Your task to perform on an android device: Show the shopping cart on bestbuy.com. Search for logitech g910 on bestbuy.com, select the first entry, add it to the cart, then select checkout. Image 0: 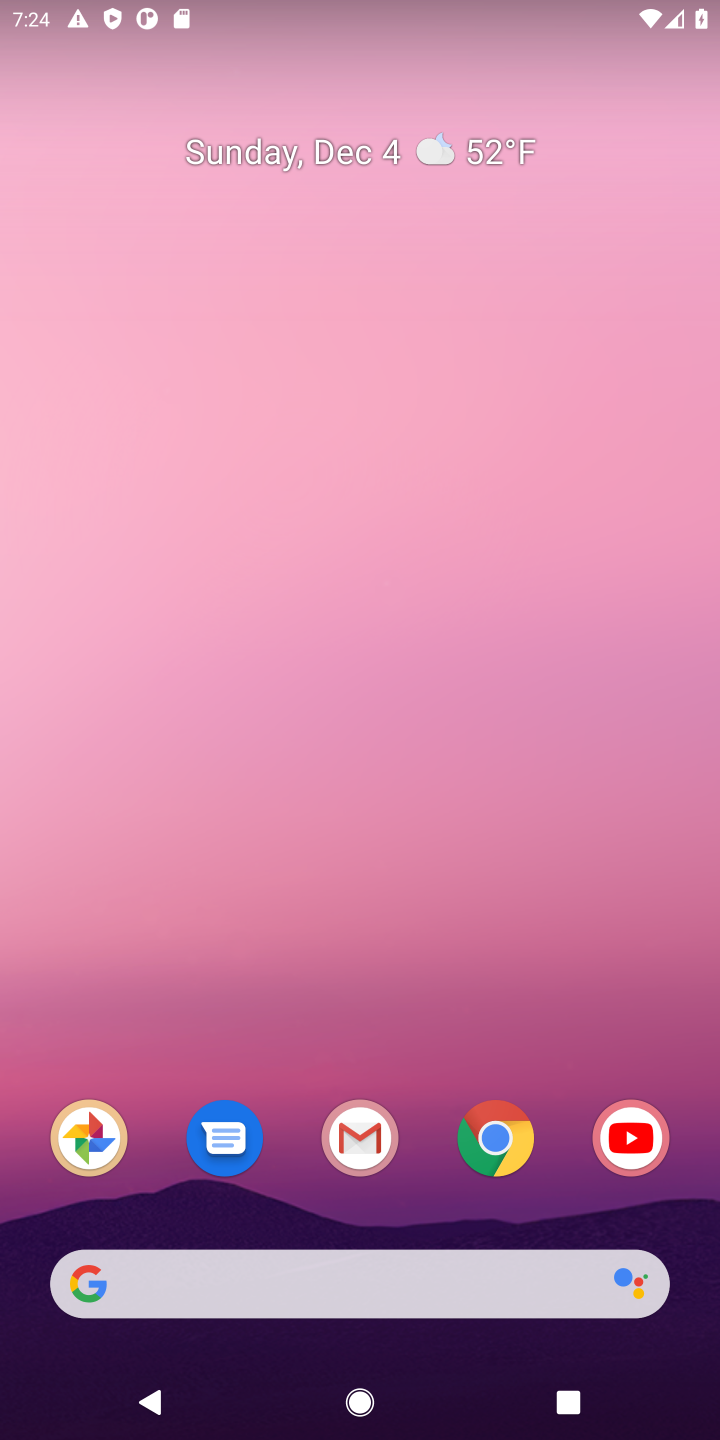
Step 0: click (491, 1143)
Your task to perform on an android device: Show the shopping cart on bestbuy.com. Search for logitech g910 on bestbuy.com, select the first entry, add it to the cart, then select checkout. Image 1: 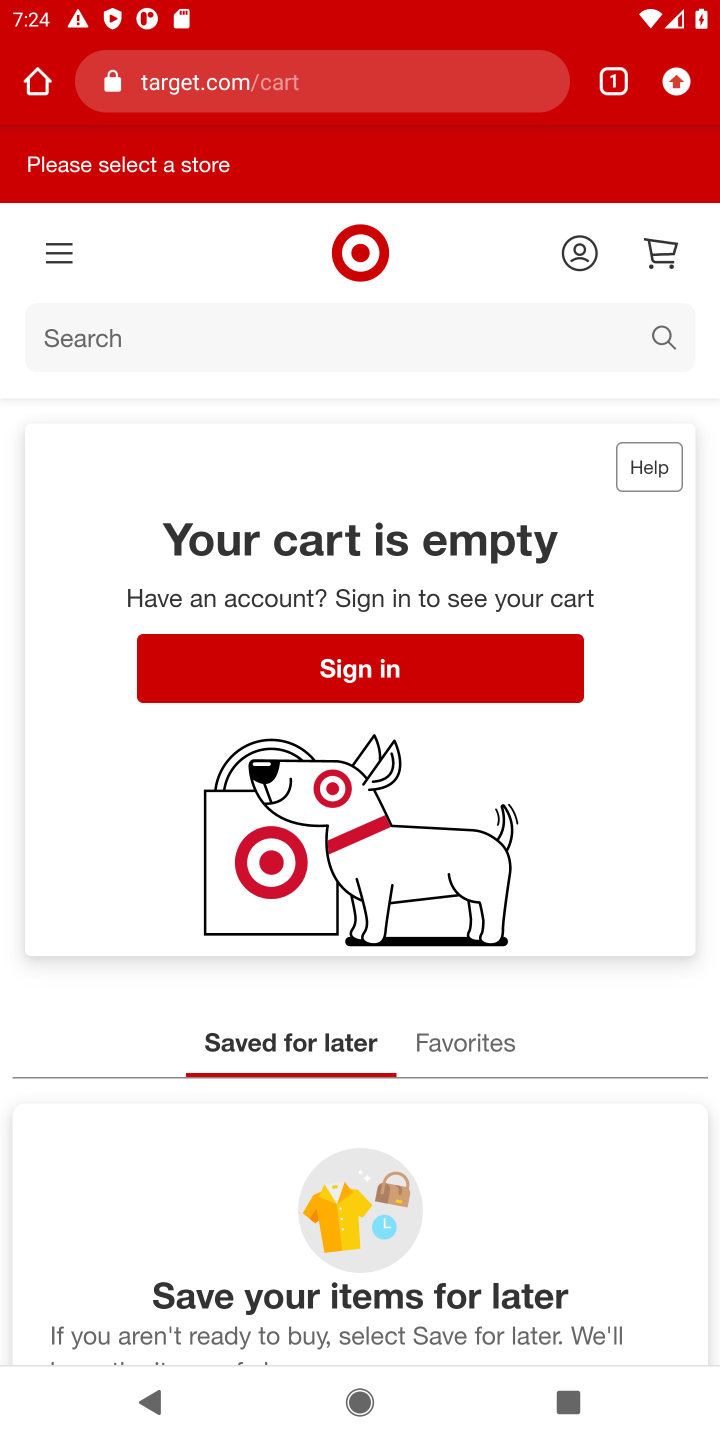
Step 1: click (420, 79)
Your task to perform on an android device: Show the shopping cart on bestbuy.com. Search for logitech g910 on bestbuy.com, select the first entry, add it to the cart, then select checkout. Image 2: 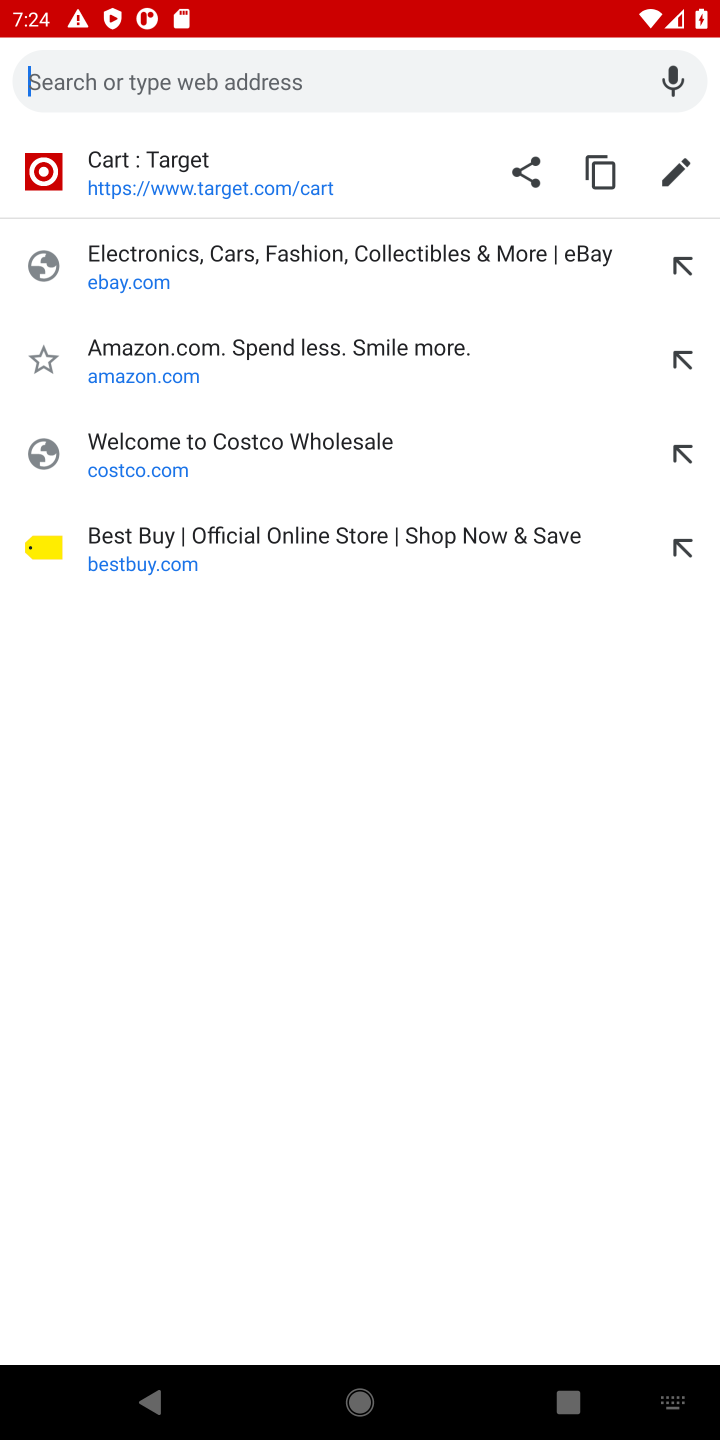
Step 2: type "bestbuy.com"
Your task to perform on an android device: Show the shopping cart on bestbuy.com. Search for logitech g910 on bestbuy.com, select the first entry, add it to the cart, then select checkout. Image 3: 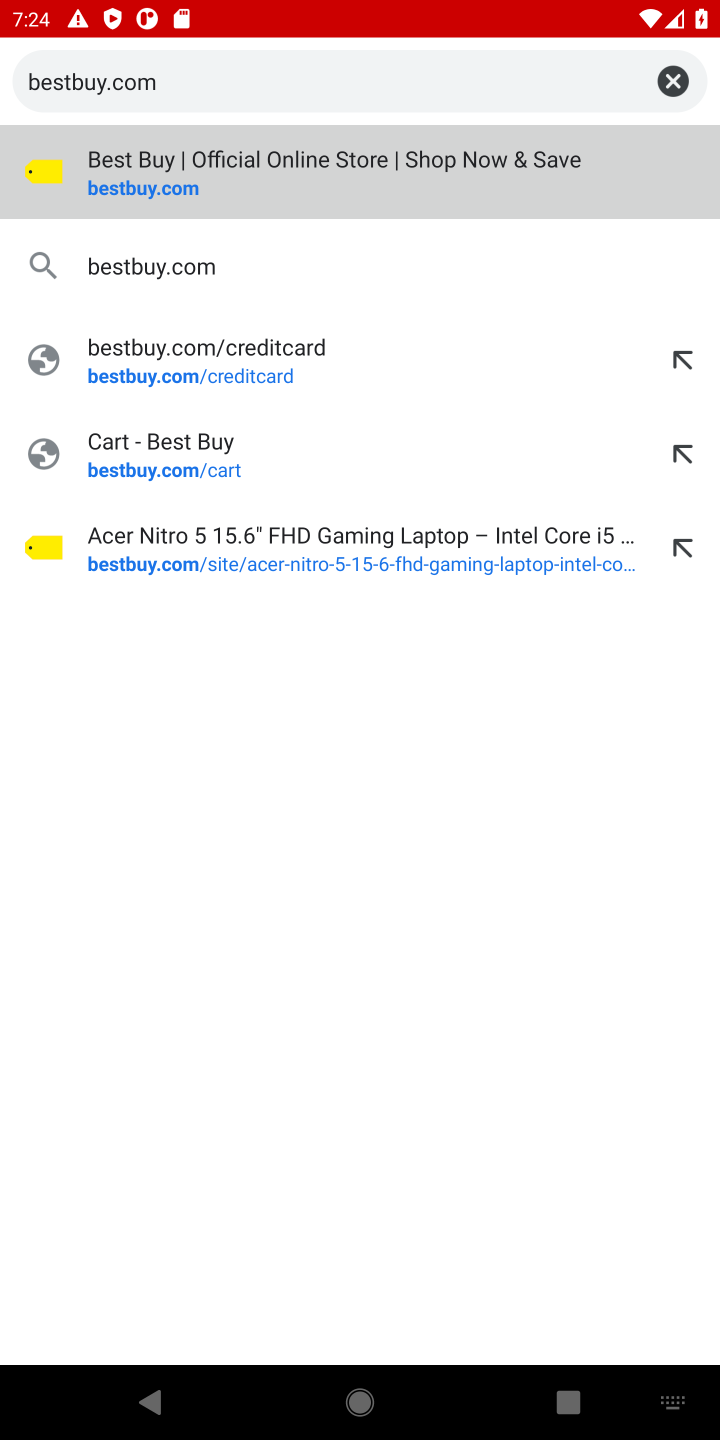
Step 3: press enter
Your task to perform on an android device: Show the shopping cart on bestbuy.com. Search for logitech g910 on bestbuy.com, select the first entry, add it to the cart, then select checkout. Image 4: 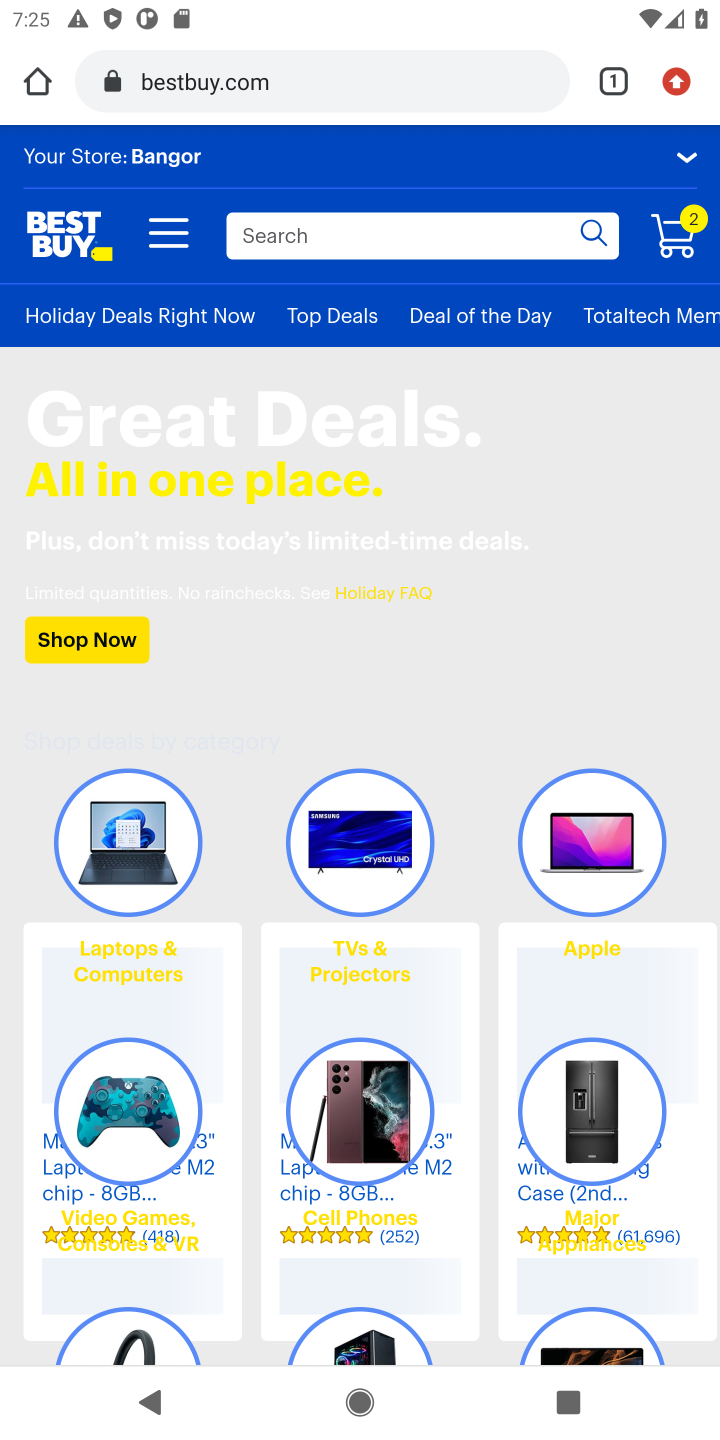
Step 4: click (665, 230)
Your task to perform on an android device: Show the shopping cart on bestbuy.com. Search for logitech g910 on bestbuy.com, select the first entry, add it to the cart, then select checkout. Image 5: 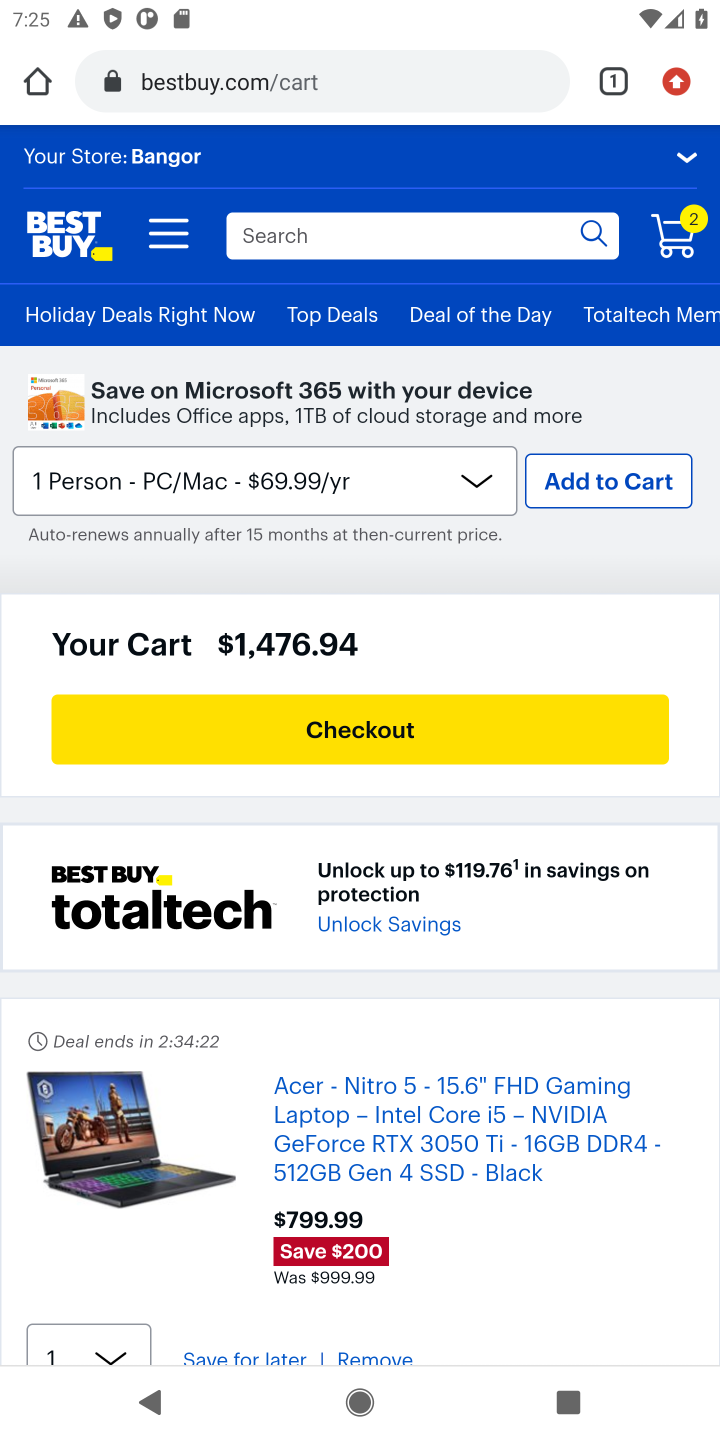
Step 5: click (407, 236)
Your task to perform on an android device: Show the shopping cart on bestbuy.com. Search for logitech g910 on bestbuy.com, select the first entry, add it to the cart, then select checkout. Image 6: 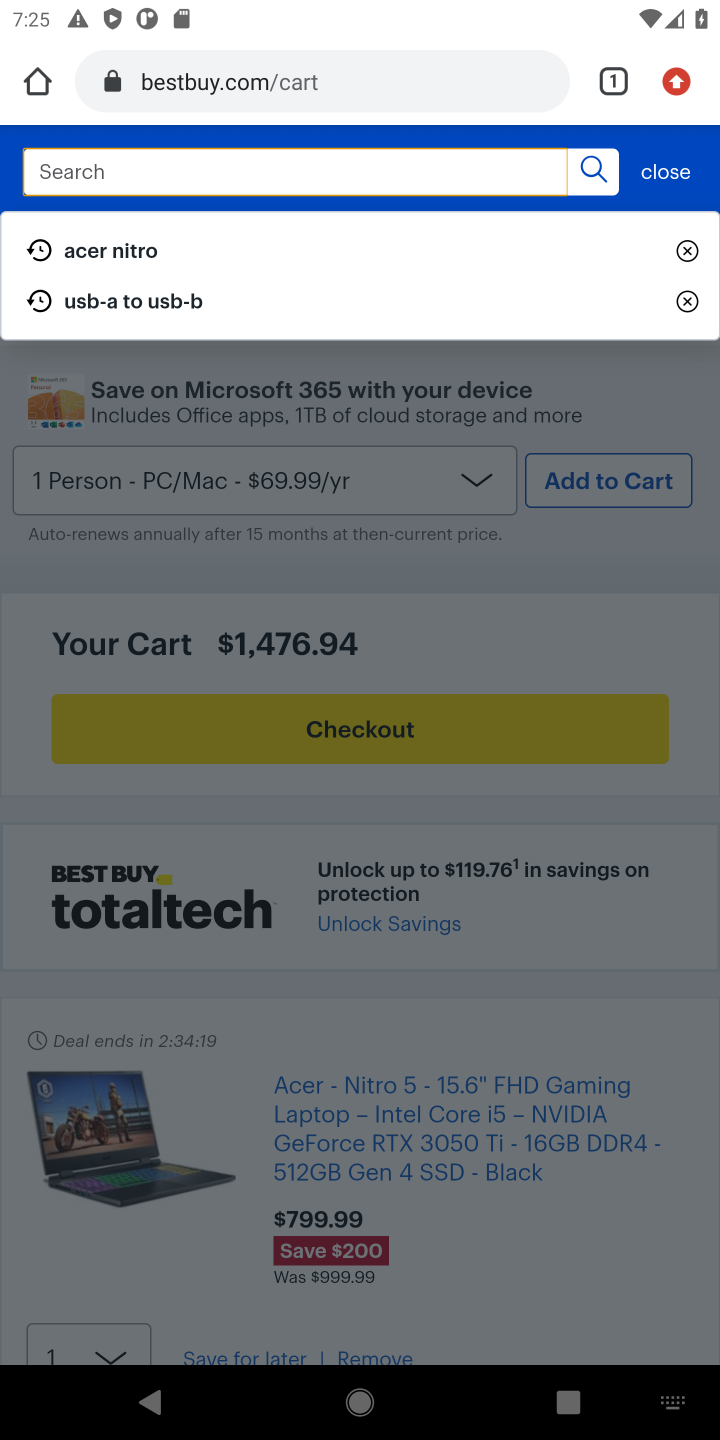
Step 6: press enter
Your task to perform on an android device: Show the shopping cart on bestbuy.com. Search for logitech g910 on bestbuy.com, select the first entry, add it to the cart, then select checkout. Image 7: 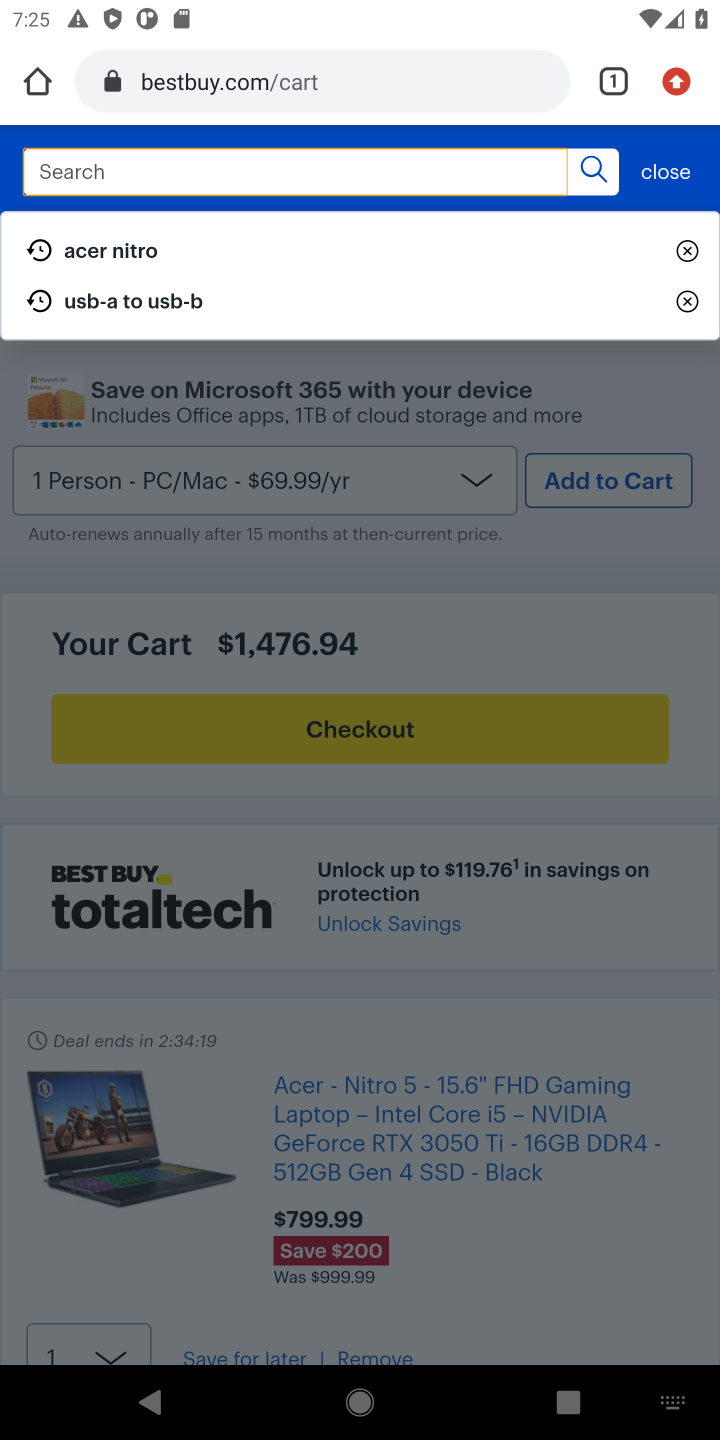
Step 7: type " logitech g910"
Your task to perform on an android device: Show the shopping cart on bestbuy.com. Search for logitech g910 on bestbuy.com, select the first entry, add it to the cart, then select checkout. Image 8: 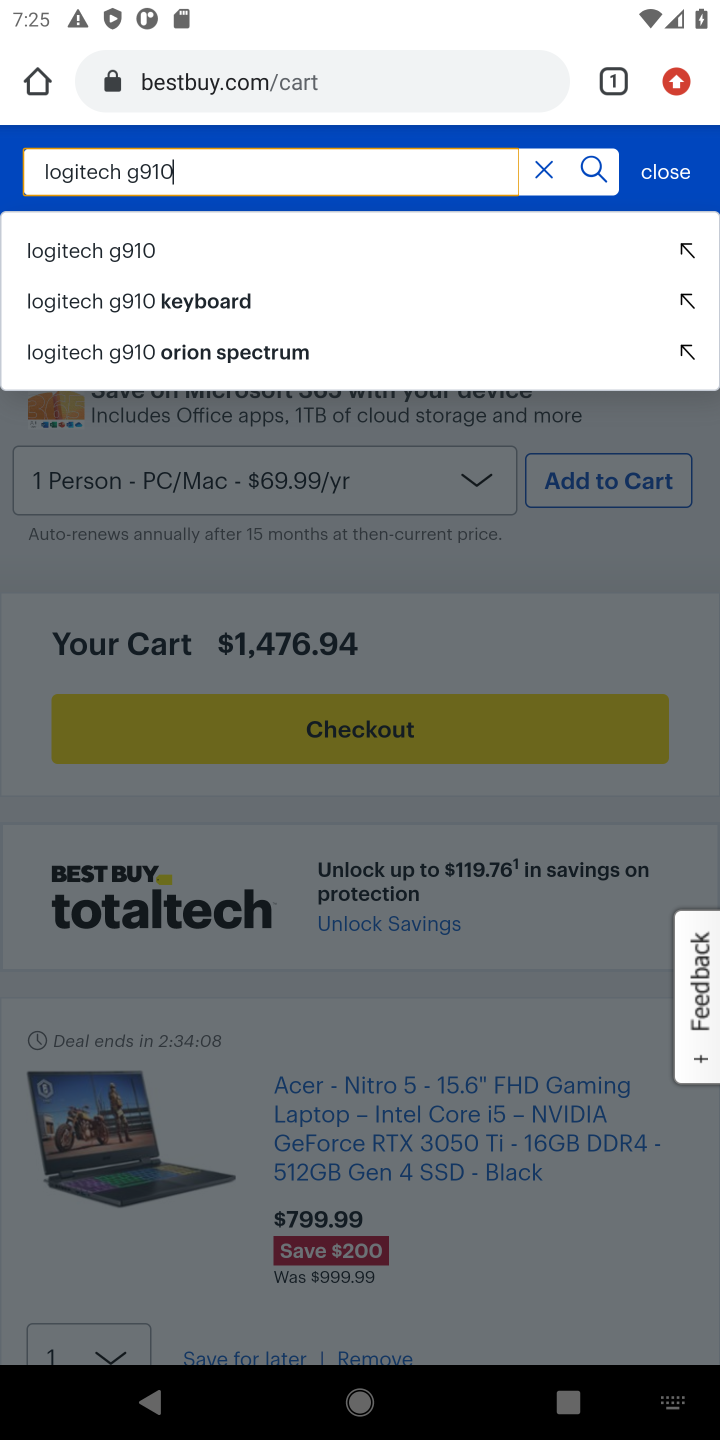
Step 8: click (592, 167)
Your task to perform on an android device: Show the shopping cart on bestbuy.com. Search for logitech g910 on bestbuy.com, select the first entry, add it to the cart, then select checkout. Image 9: 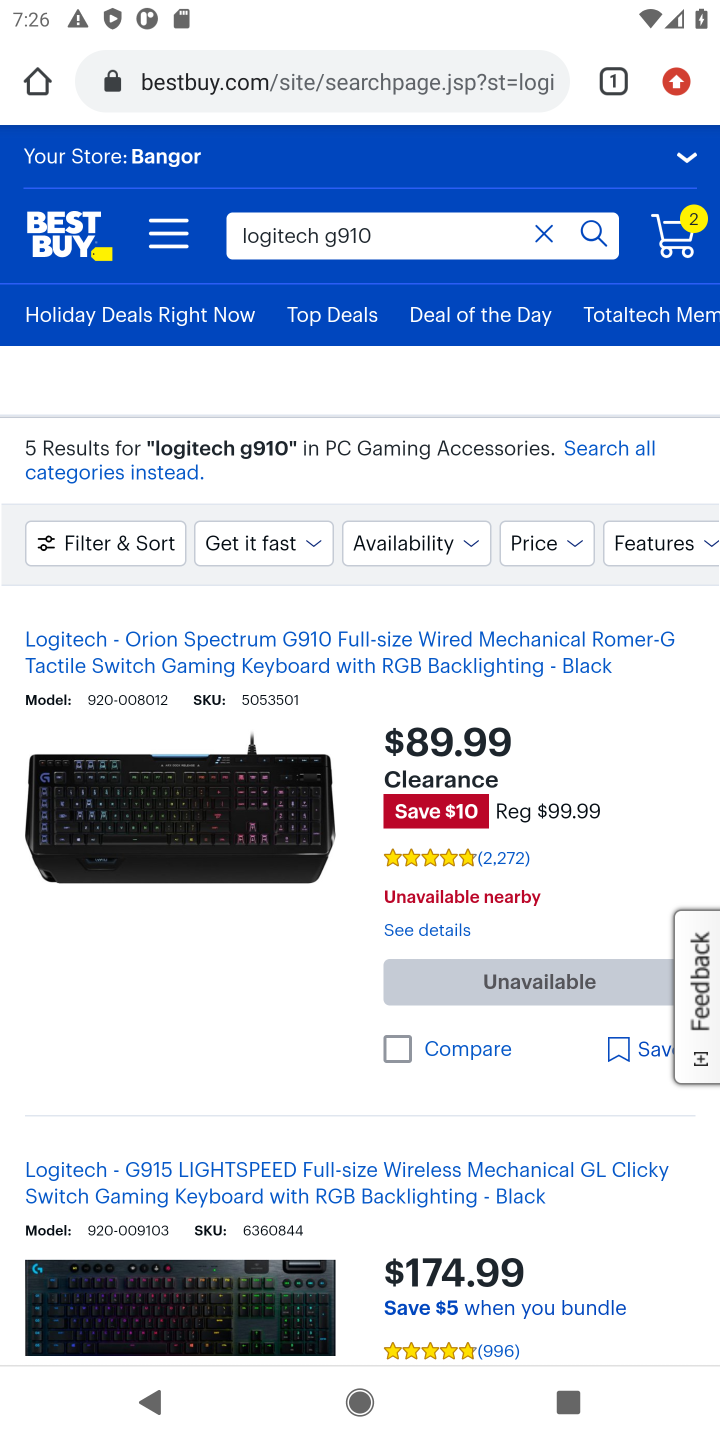
Step 9: click (149, 805)
Your task to perform on an android device: Show the shopping cart on bestbuy.com. Search for logitech g910 on bestbuy.com, select the first entry, add it to the cart, then select checkout. Image 10: 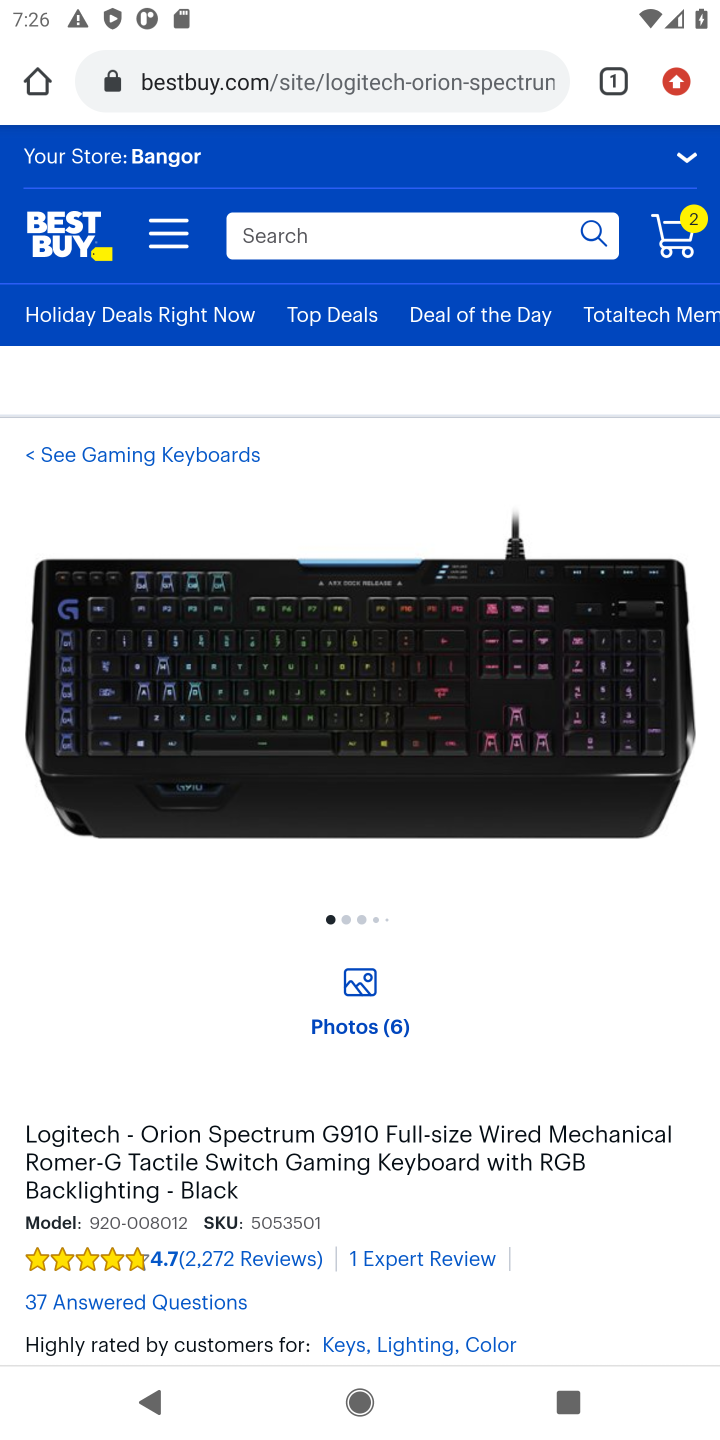
Step 10: task complete